Your task to perform on an android device: Check the news Image 0: 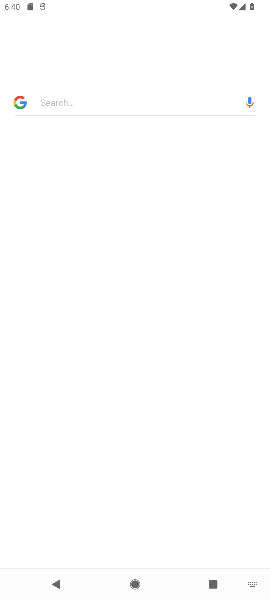
Step 0: press home button
Your task to perform on an android device: Check the news Image 1: 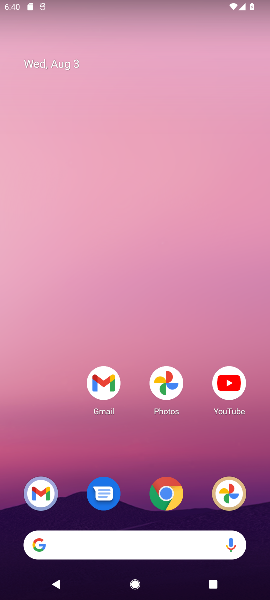
Step 1: drag from (133, 491) to (147, 136)
Your task to perform on an android device: Check the news Image 2: 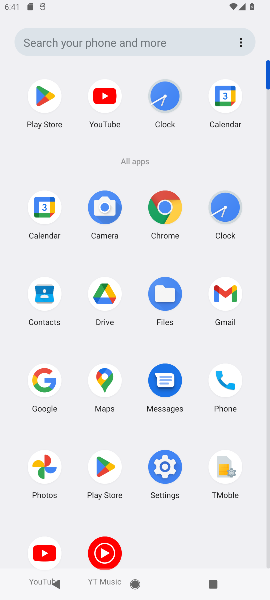
Step 2: click (154, 206)
Your task to perform on an android device: Check the news Image 3: 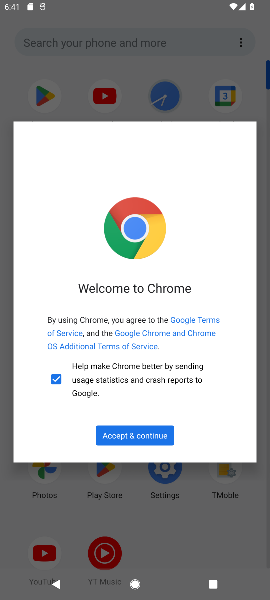
Step 3: click (137, 428)
Your task to perform on an android device: Check the news Image 4: 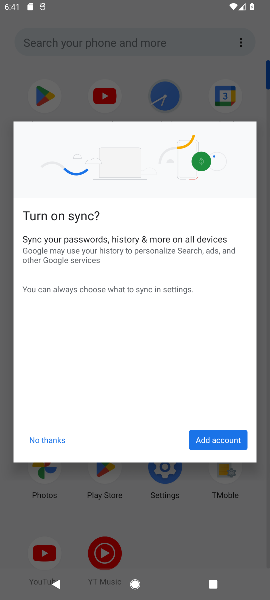
Step 4: click (213, 435)
Your task to perform on an android device: Check the news Image 5: 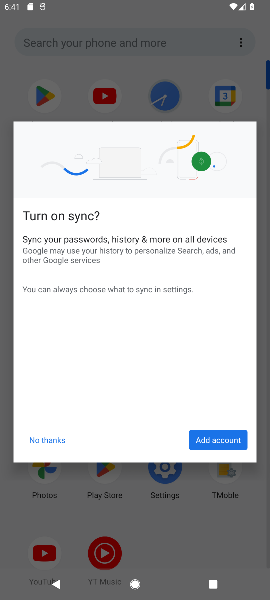
Step 5: click (209, 437)
Your task to perform on an android device: Check the news Image 6: 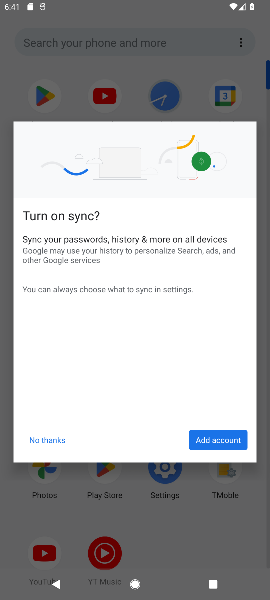
Step 6: click (209, 437)
Your task to perform on an android device: Check the news Image 7: 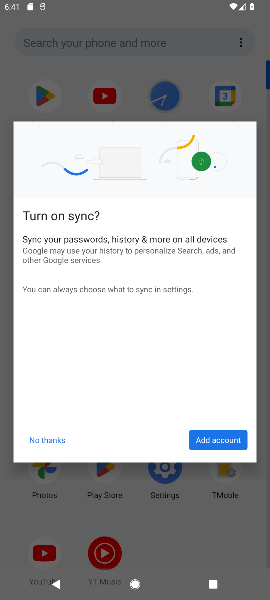
Step 7: click (212, 437)
Your task to perform on an android device: Check the news Image 8: 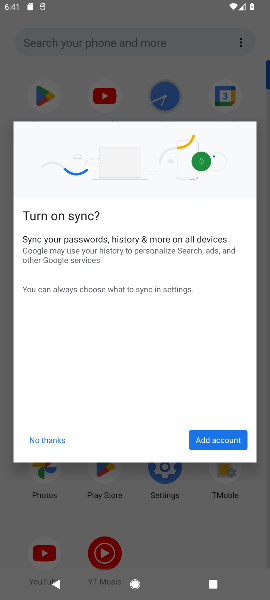
Step 8: click (217, 437)
Your task to perform on an android device: Check the news Image 9: 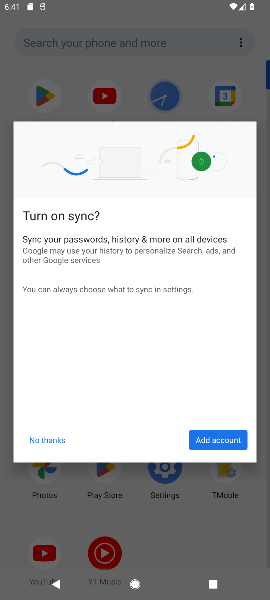
Step 9: click (36, 441)
Your task to perform on an android device: Check the news Image 10: 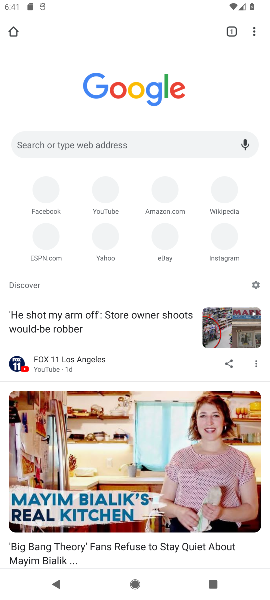
Step 10: click (132, 141)
Your task to perform on an android device: Check the news Image 11: 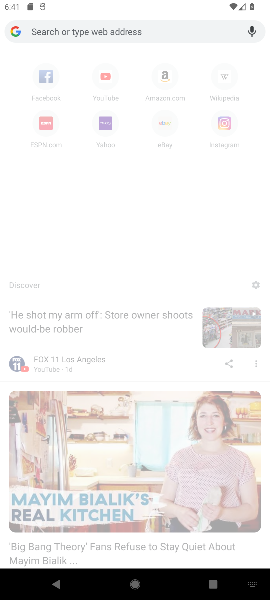
Step 11: type "Check the news "
Your task to perform on an android device: Check the news Image 12: 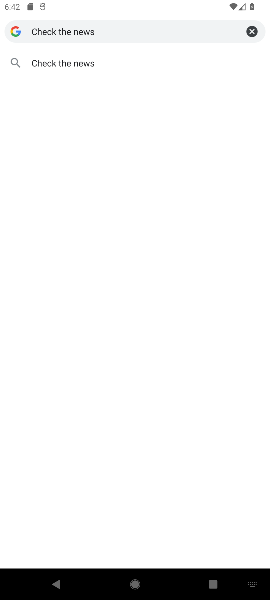
Step 12: click (51, 58)
Your task to perform on an android device: Check the news Image 13: 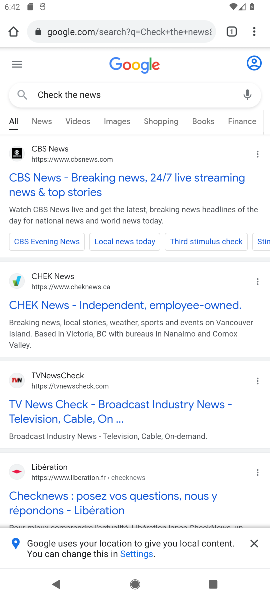
Step 13: task complete